Your task to perform on an android device: add a contact in the contacts app Image 0: 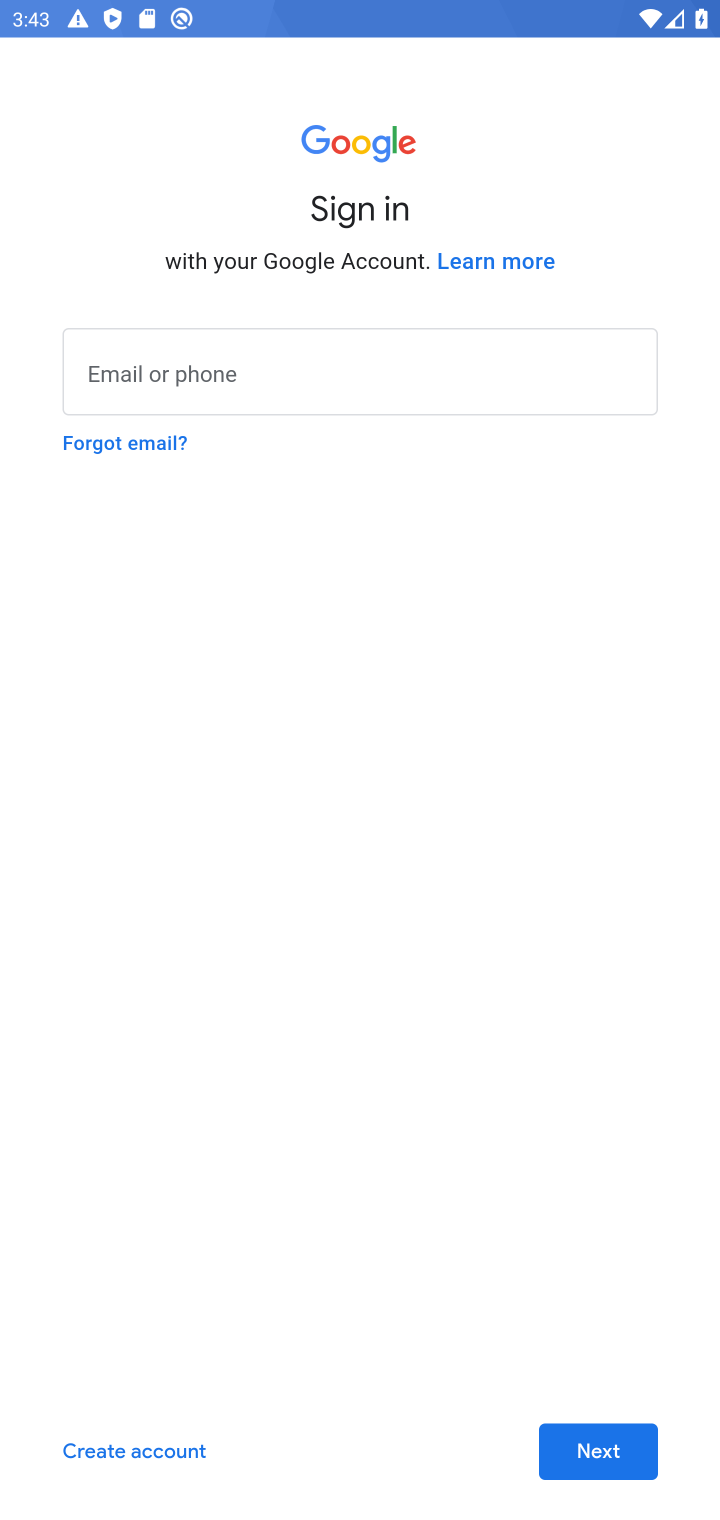
Step 0: press home button
Your task to perform on an android device: add a contact in the contacts app Image 1: 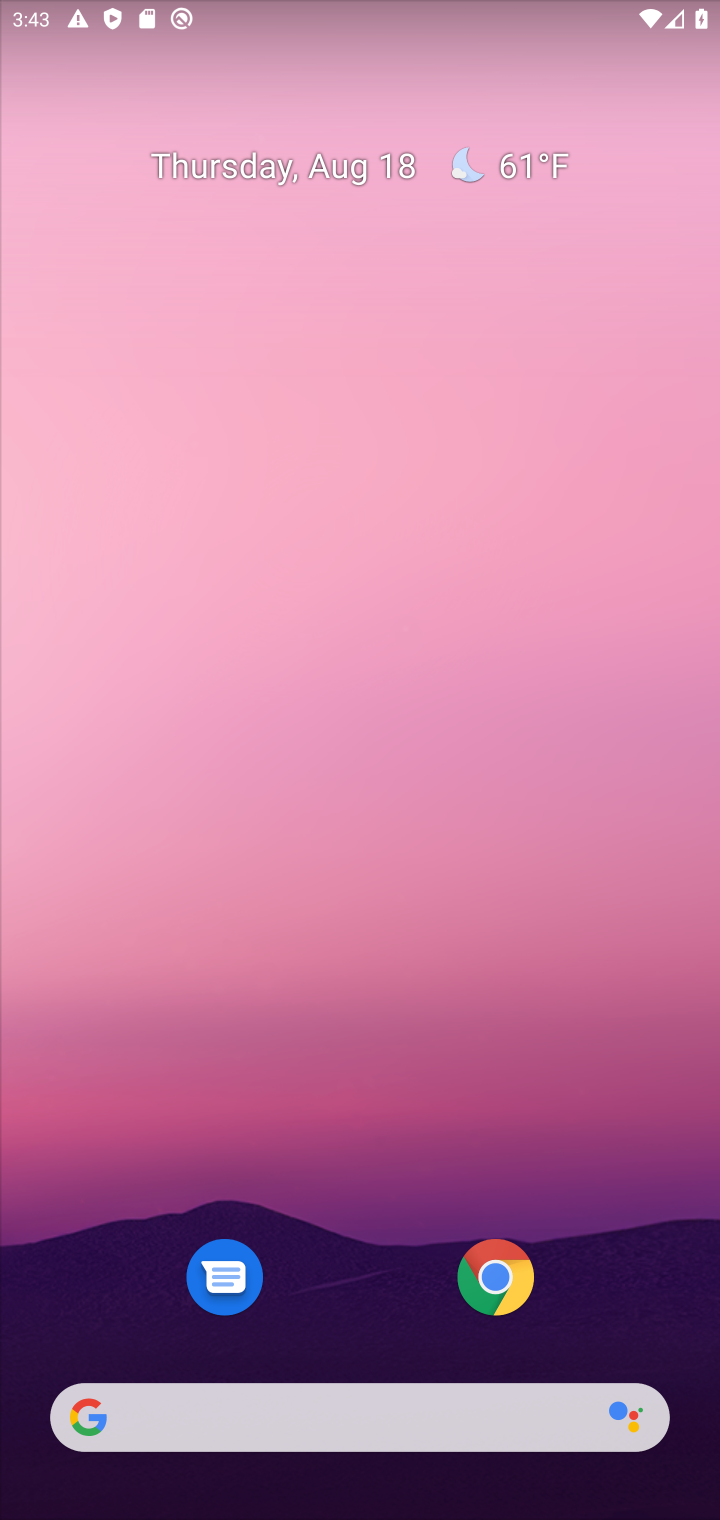
Step 1: task complete